Your task to perform on an android device: Check the news Image 0: 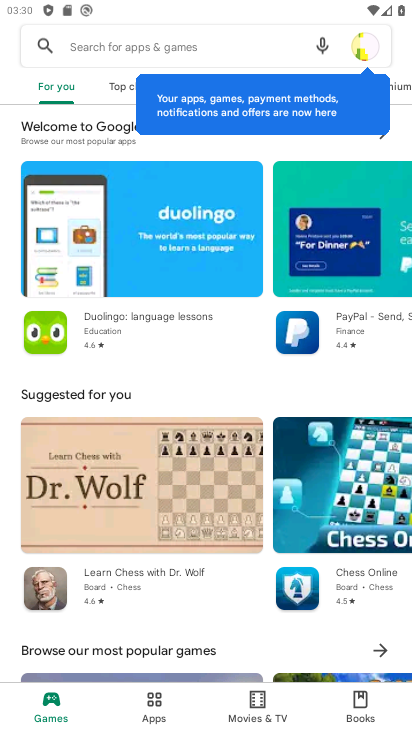
Step 0: press home button
Your task to perform on an android device: Check the news Image 1: 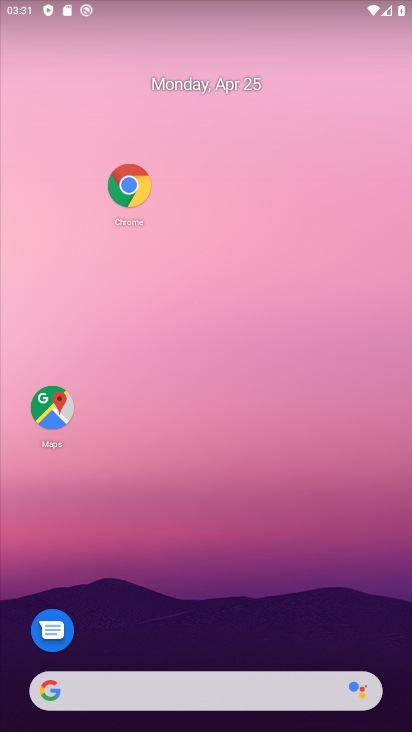
Step 1: click (127, 179)
Your task to perform on an android device: Check the news Image 2: 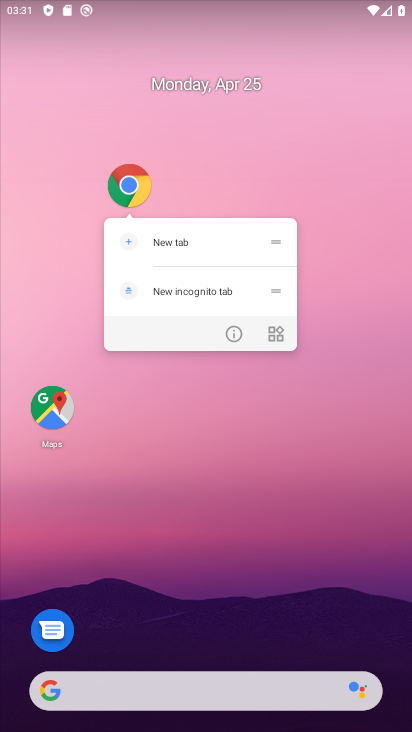
Step 2: click (238, 334)
Your task to perform on an android device: Check the news Image 3: 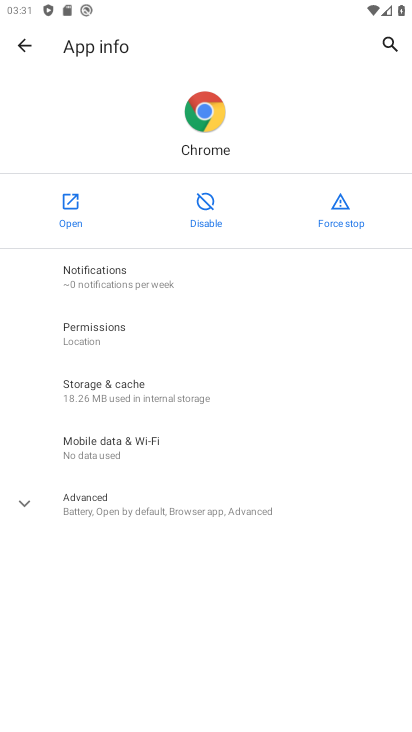
Step 3: click (81, 200)
Your task to perform on an android device: Check the news Image 4: 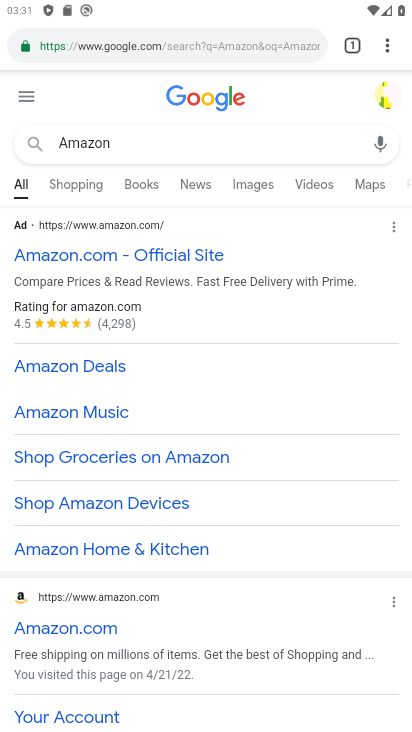
Step 4: click (132, 145)
Your task to perform on an android device: Check the news Image 5: 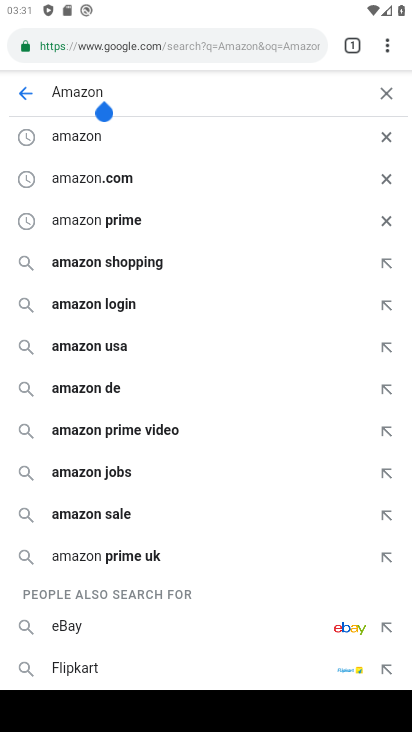
Step 5: click (388, 103)
Your task to perform on an android device: Check the news Image 6: 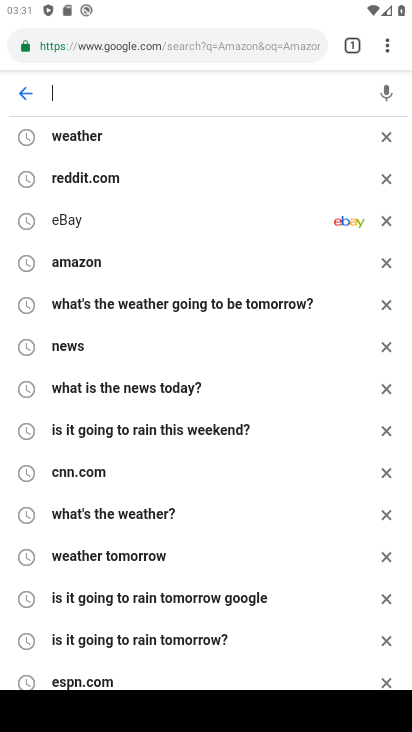
Step 6: type "news"
Your task to perform on an android device: Check the news Image 7: 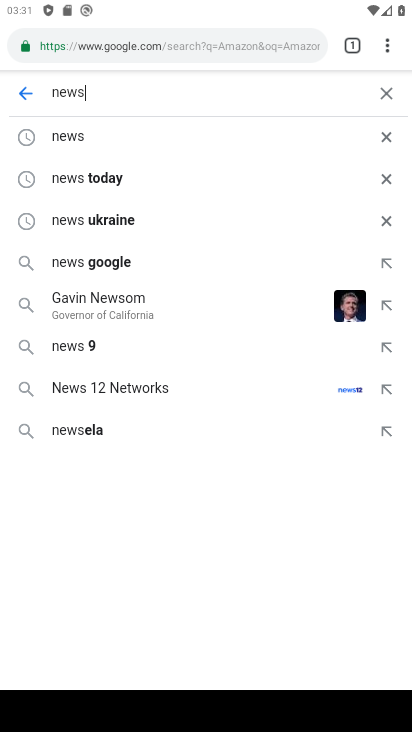
Step 7: click (85, 138)
Your task to perform on an android device: Check the news Image 8: 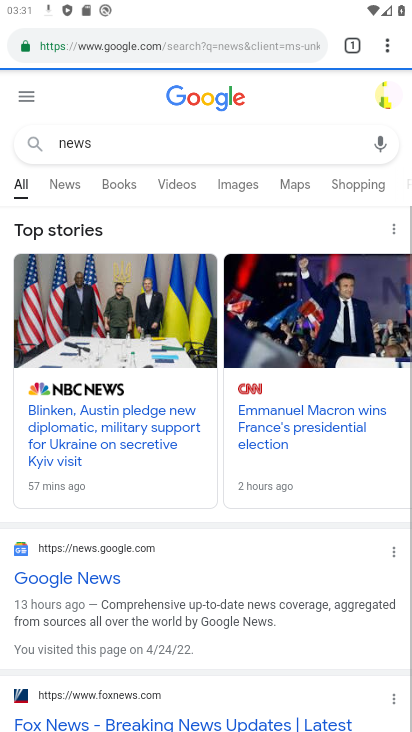
Step 8: task complete